Your task to perform on an android device: Open notification settings Image 0: 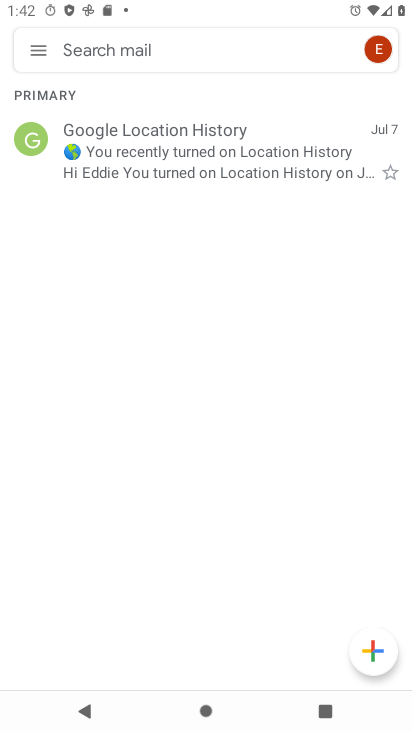
Step 0: press home button
Your task to perform on an android device: Open notification settings Image 1: 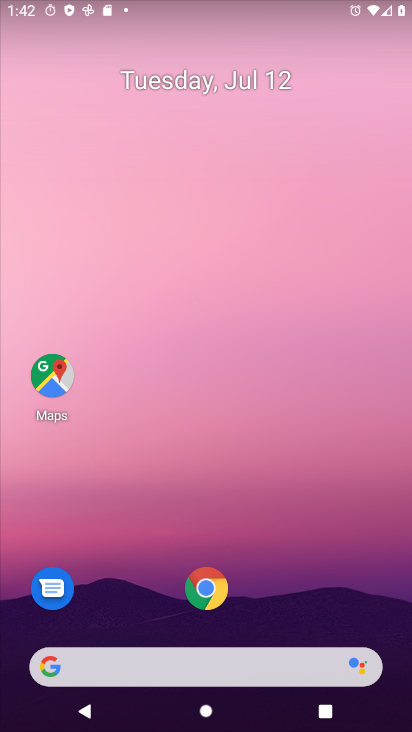
Step 1: drag from (153, 675) to (249, 210)
Your task to perform on an android device: Open notification settings Image 2: 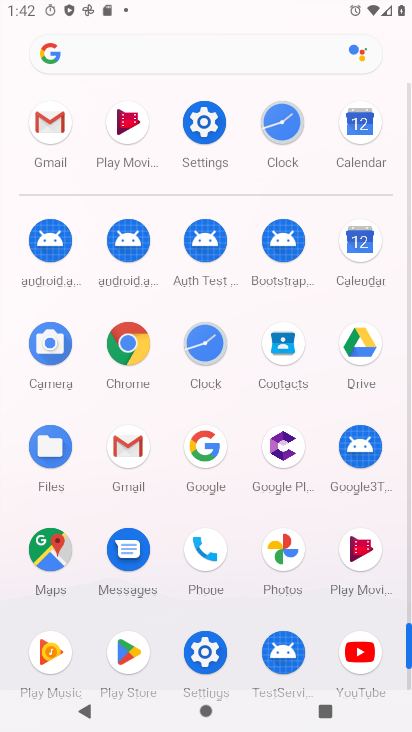
Step 2: click (199, 120)
Your task to perform on an android device: Open notification settings Image 3: 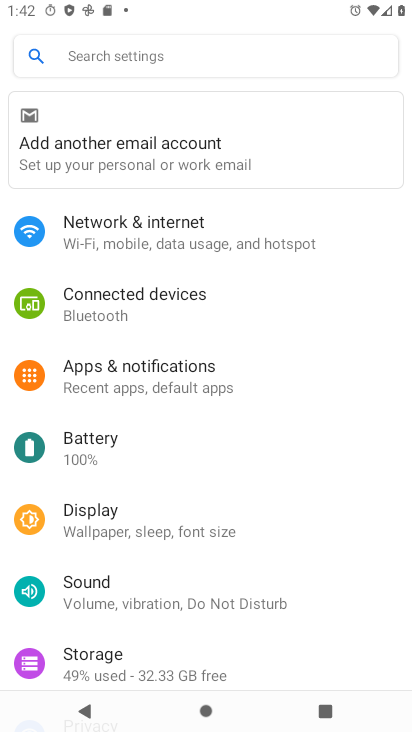
Step 3: click (168, 379)
Your task to perform on an android device: Open notification settings Image 4: 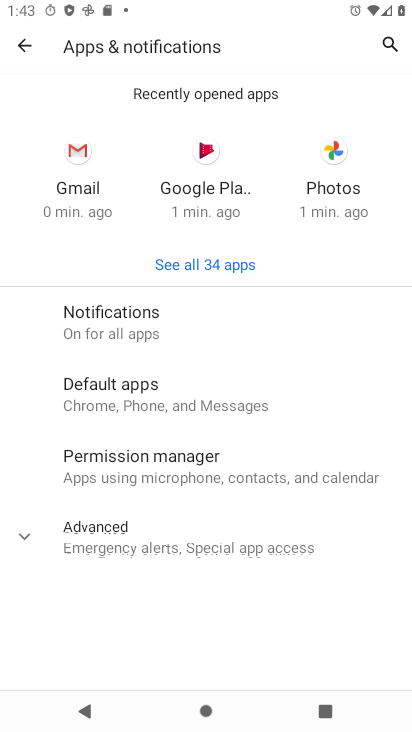
Step 4: click (125, 323)
Your task to perform on an android device: Open notification settings Image 5: 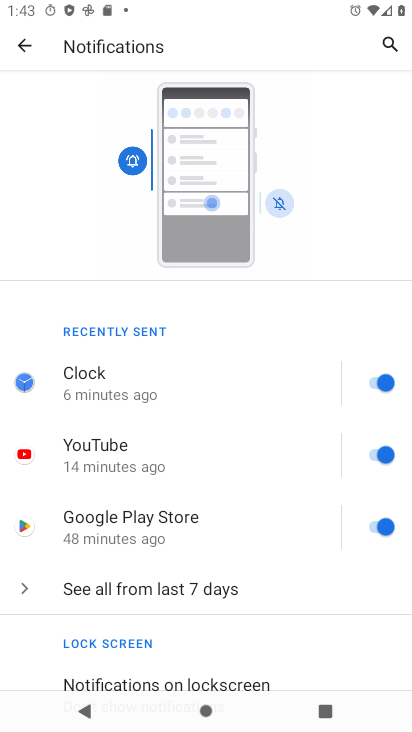
Step 5: task complete